Your task to perform on an android device: What's the weather? Image 0: 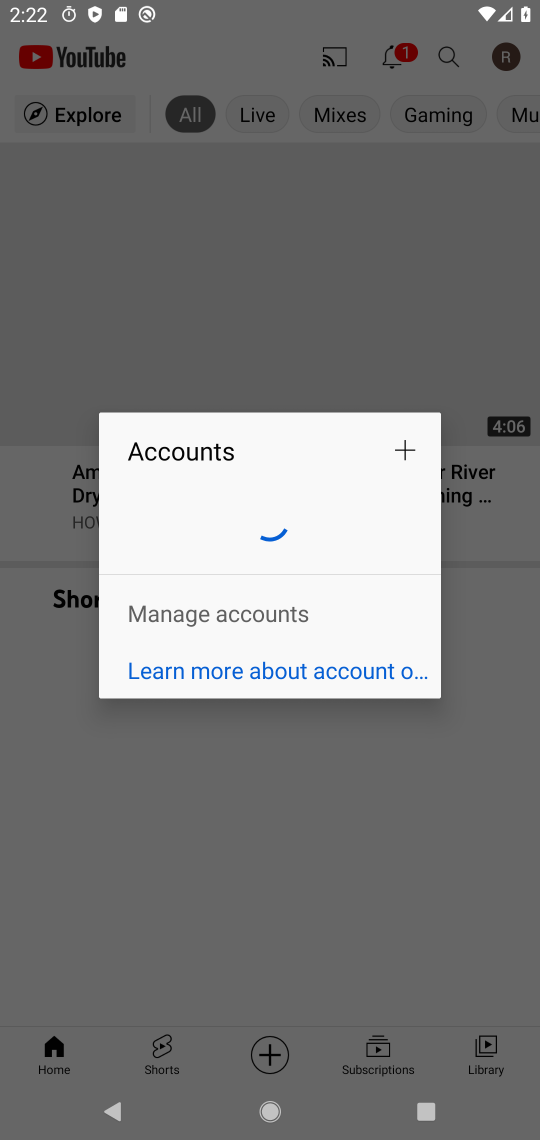
Step 0: press home button
Your task to perform on an android device: What's the weather? Image 1: 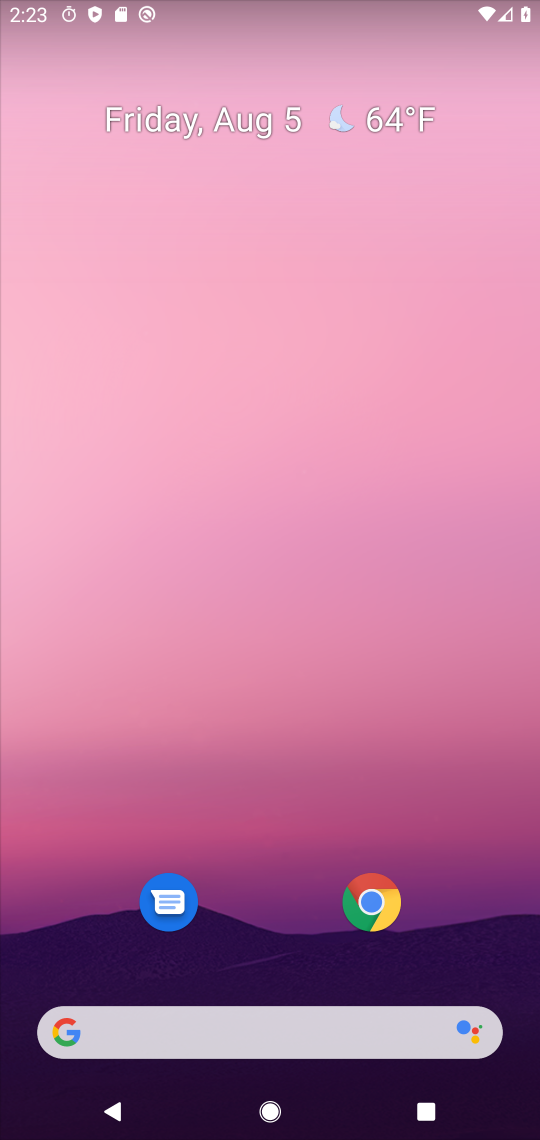
Step 1: drag from (310, 1039) to (276, 553)
Your task to perform on an android device: What's the weather? Image 2: 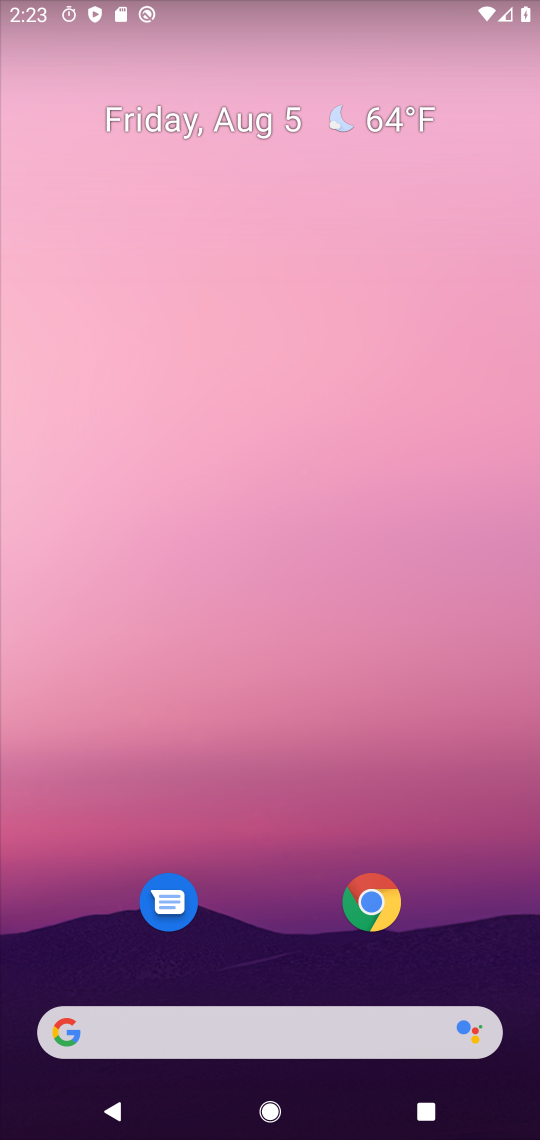
Step 2: drag from (323, 999) to (251, 174)
Your task to perform on an android device: What's the weather? Image 3: 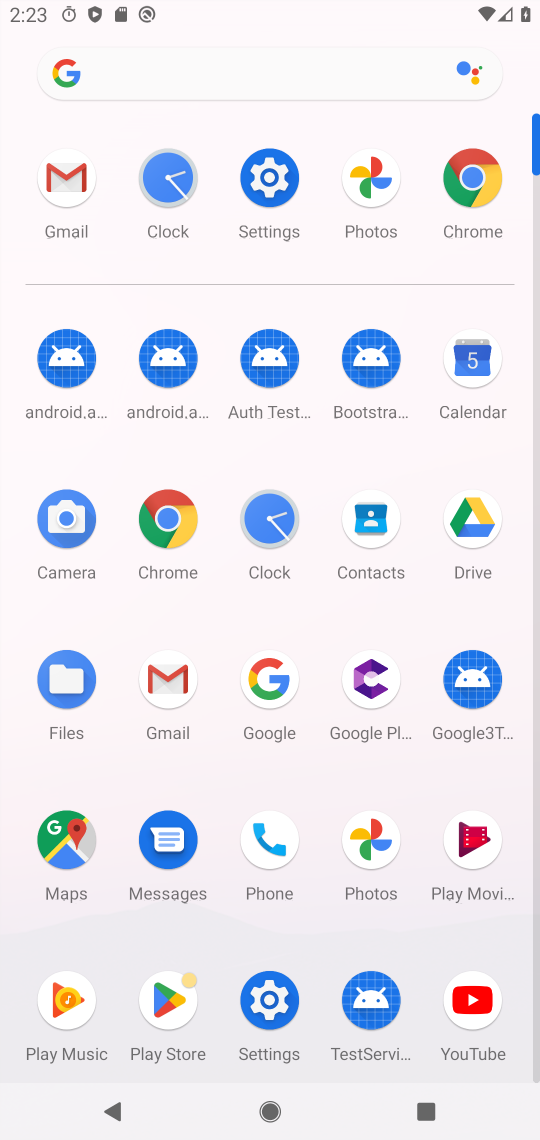
Step 3: click (112, 77)
Your task to perform on an android device: What's the weather? Image 4: 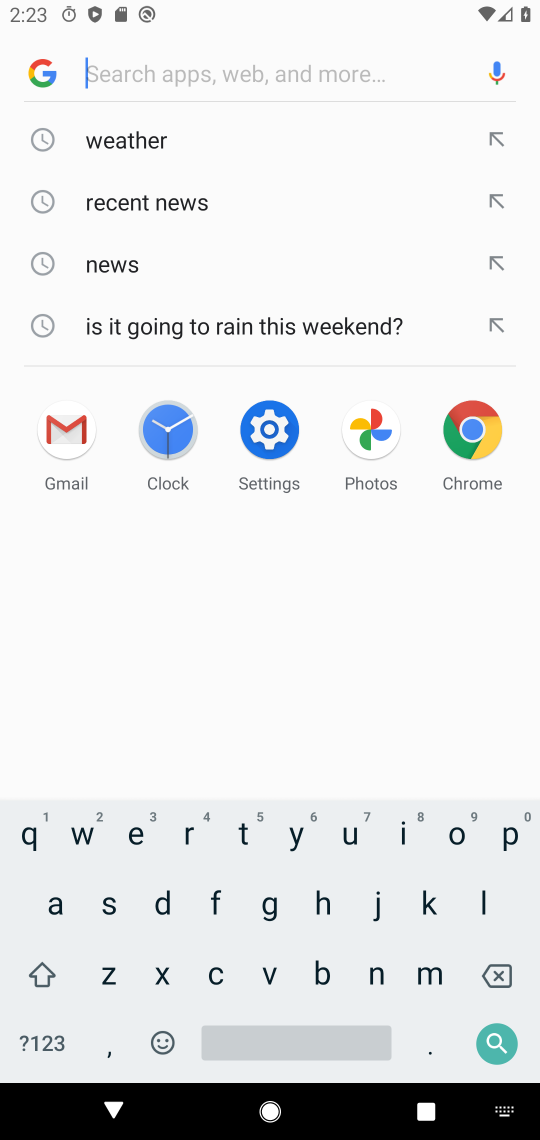
Step 4: click (141, 134)
Your task to perform on an android device: What's the weather? Image 5: 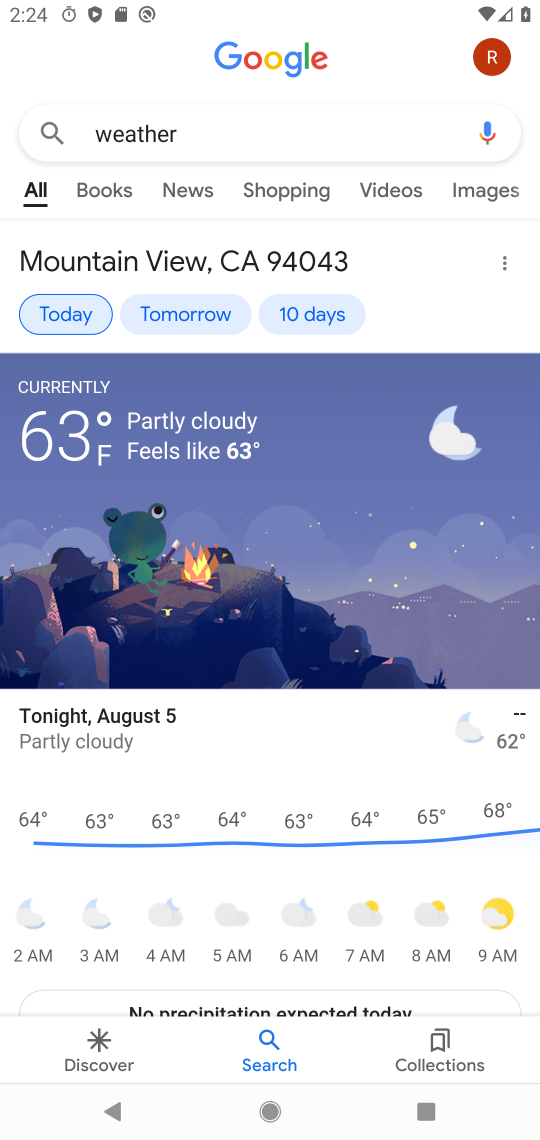
Step 5: task complete